Your task to perform on an android device: Search for sushi restaurants on Maps Image 0: 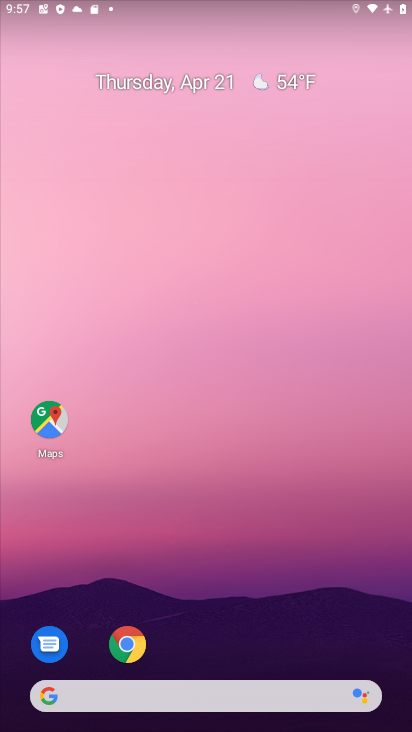
Step 0: click (52, 419)
Your task to perform on an android device: Search for sushi restaurants on Maps Image 1: 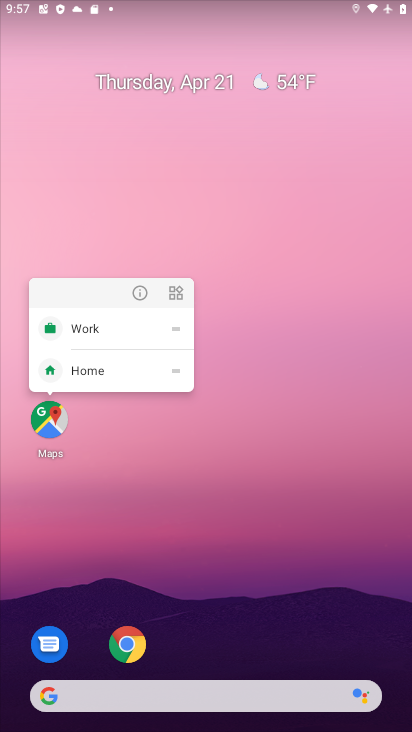
Step 1: click (62, 439)
Your task to perform on an android device: Search for sushi restaurants on Maps Image 2: 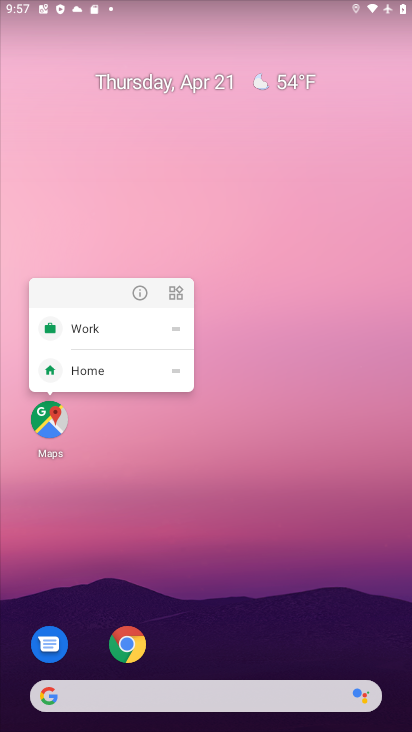
Step 2: click (53, 426)
Your task to perform on an android device: Search for sushi restaurants on Maps Image 3: 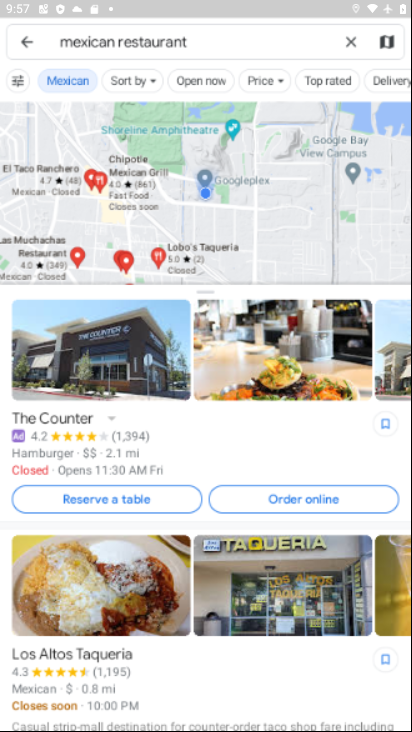
Step 3: click (245, 45)
Your task to perform on an android device: Search for sushi restaurants on Maps Image 4: 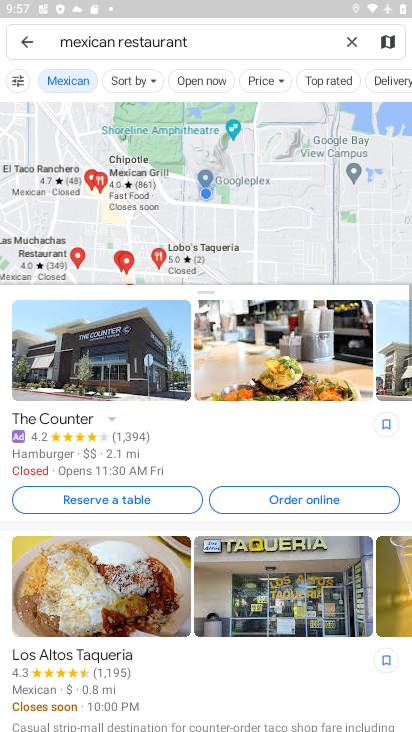
Step 4: click (262, 45)
Your task to perform on an android device: Search for sushi restaurants on Maps Image 5: 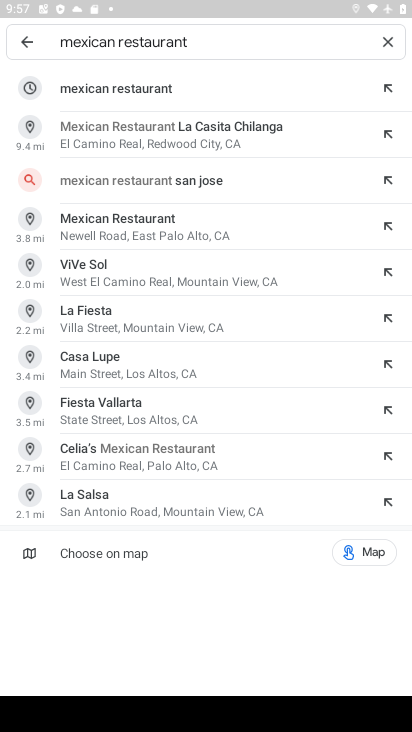
Step 5: click (384, 38)
Your task to perform on an android device: Search for sushi restaurants on Maps Image 6: 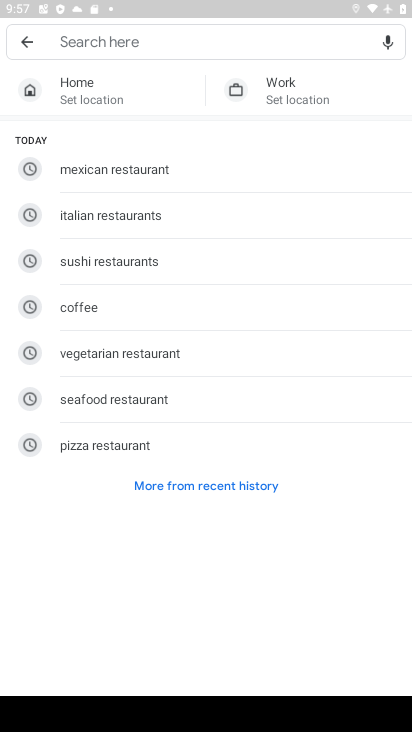
Step 6: click (90, 269)
Your task to perform on an android device: Search for sushi restaurants on Maps Image 7: 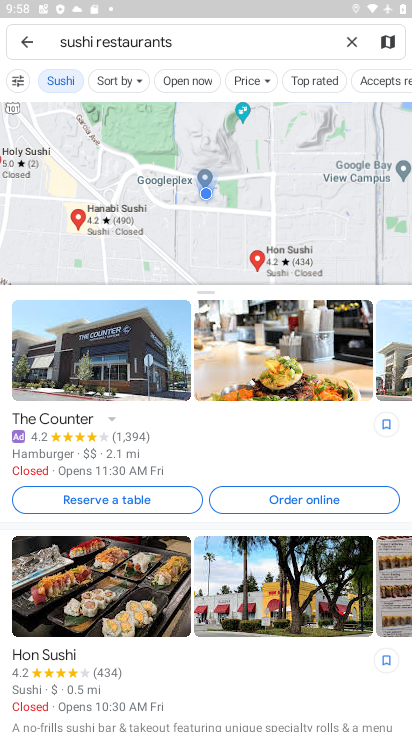
Step 7: task complete